Your task to perform on an android device: turn off notifications in google photos Image 0: 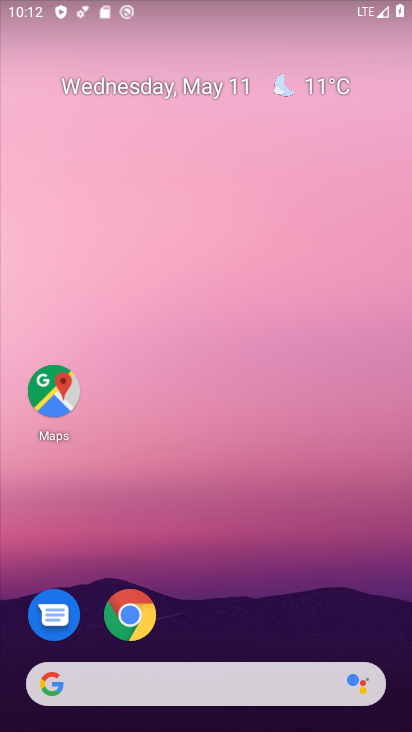
Step 0: drag from (259, 592) to (320, 114)
Your task to perform on an android device: turn off notifications in google photos Image 1: 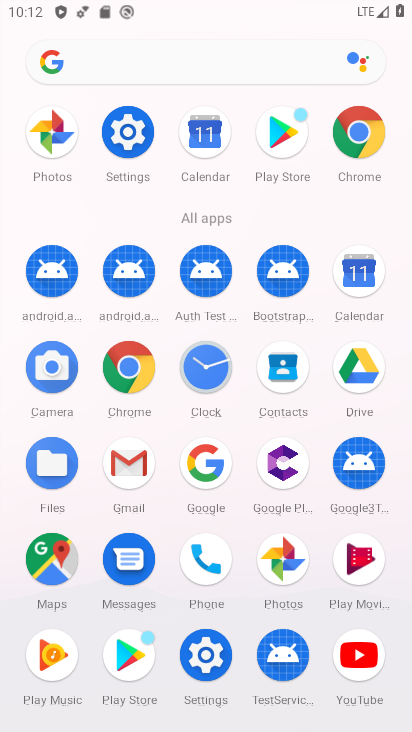
Step 1: click (283, 561)
Your task to perform on an android device: turn off notifications in google photos Image 2: 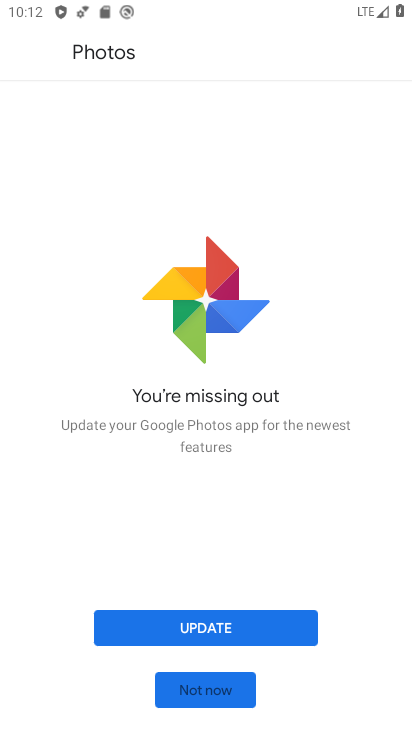
Step 2: click (211, 629)
Your task to perform on an android device: turn off notifications in google photos Image 3: 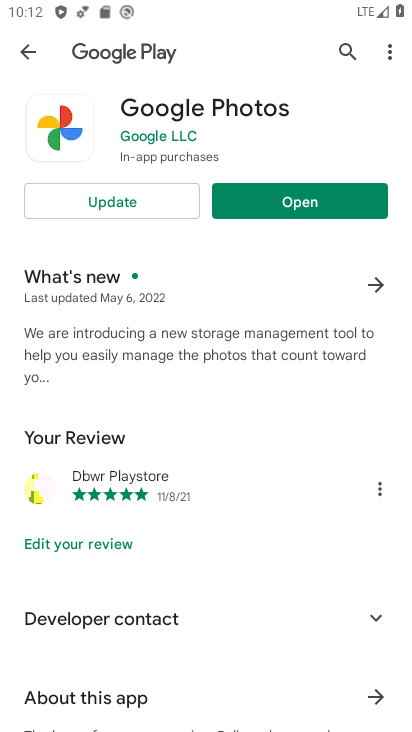
Step 3: click (147, 197)
Your task to perform on an android device: turn off notifications in google photos Image 4: 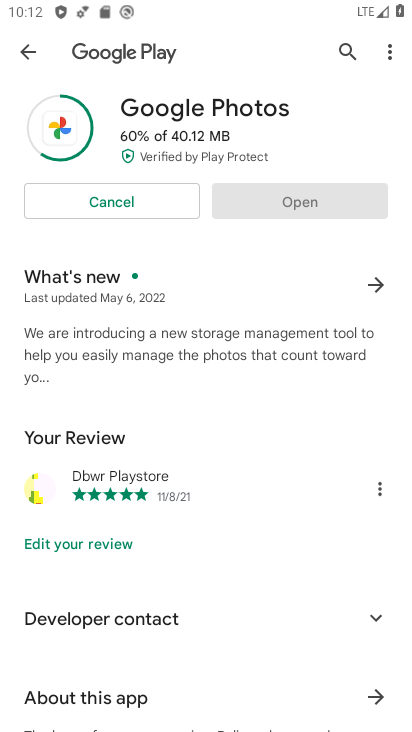
Step 4: task complete